Your task to perform on an android device: Show me popular videos on Youtube Image 0: 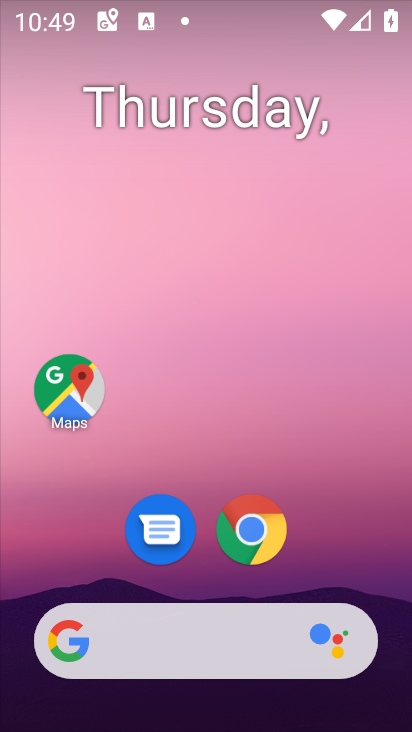
Step 0: drag from (261, 597) to (142, 27)
Your task to perform on an android device: Show me popular videos on Youtube Image 1: 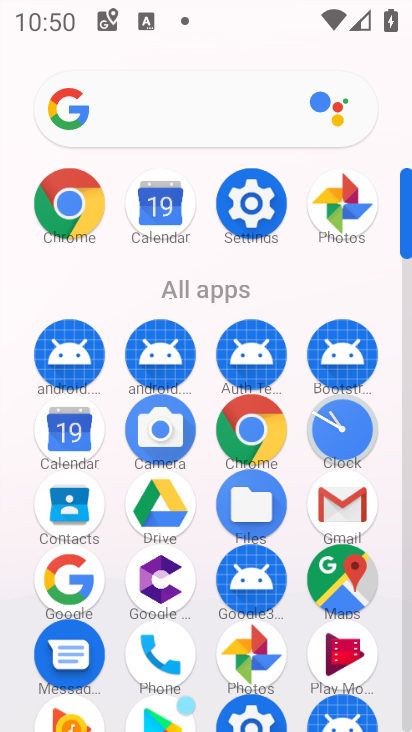
Step 1: drag from (206, 498) to (142, 102)
Your task to perform on an android device: Show me popular videos on Youtube Image 2: 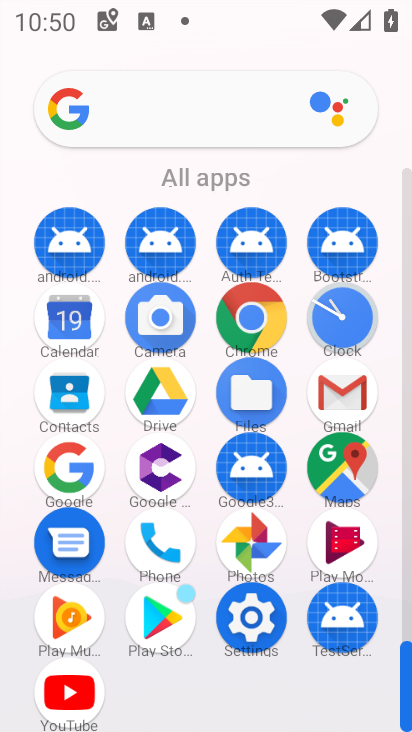
Step 2: click (76, 685)
Your task to perform on an android device: Show me popular videos on Youtube Image 3: 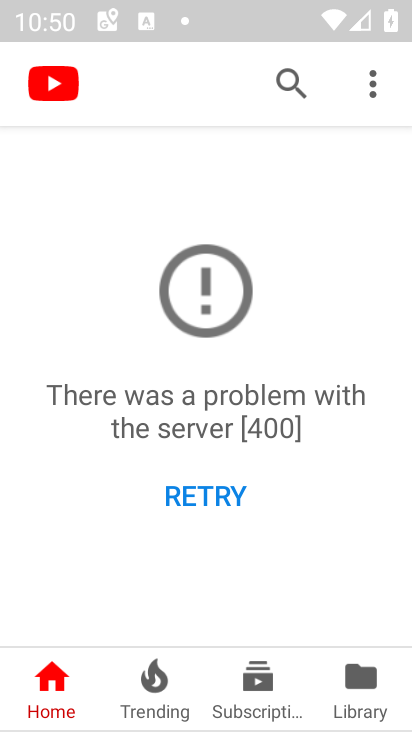
Step 3: click (226, 476)
Your task to perform on an android device: Show me popular videos on Youtube Image 4: 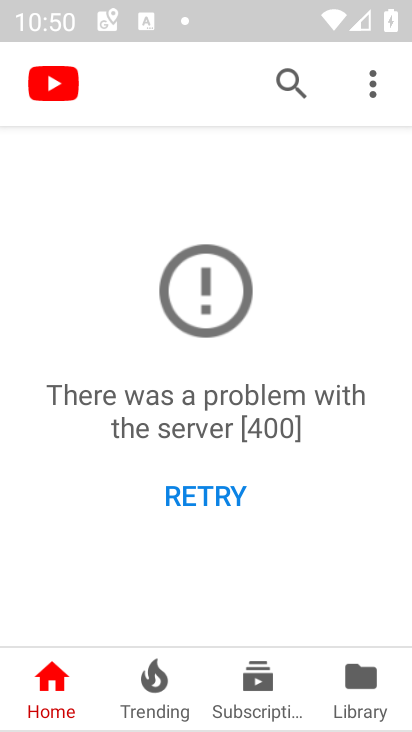
Step 4: task complete